Your task to perform on an android device: toggle wifi Image 0: 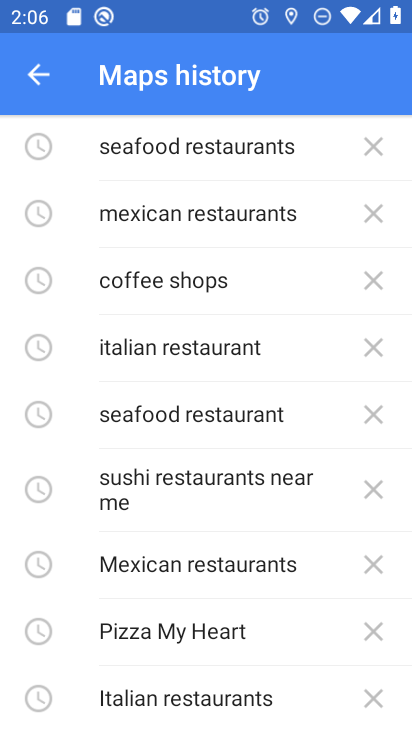
Step 0: press home button
Your task to perform on an android device: toggle wifi Image 1: 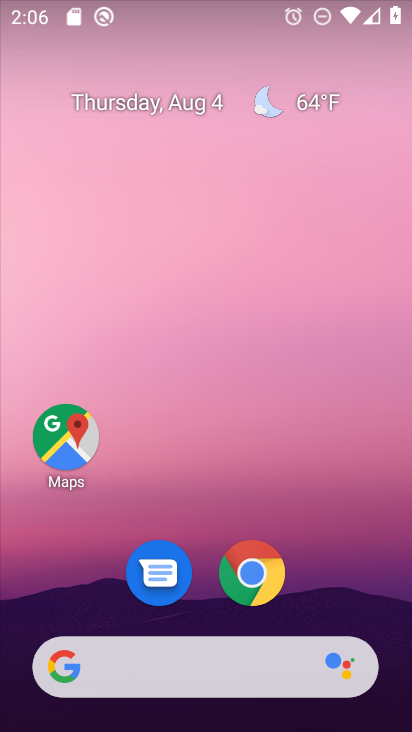
Step 1: drag from (299, 455) to (311, 129)
Your task to perform on an android device: toggle wifi Image 2: 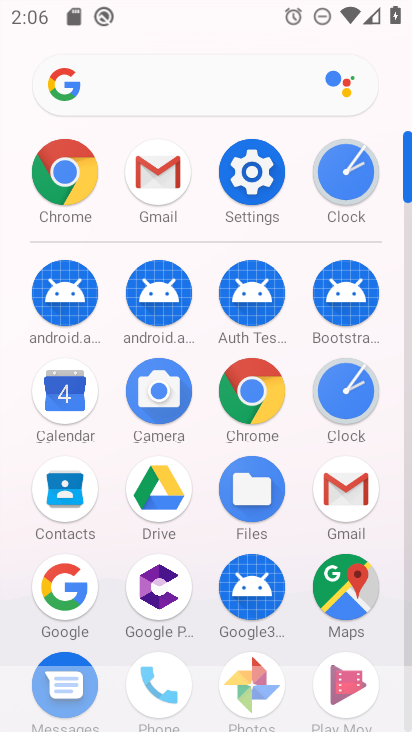
Step 2: click (244, 175)
Your task to perform on an android device: toggle wifi Image 3: 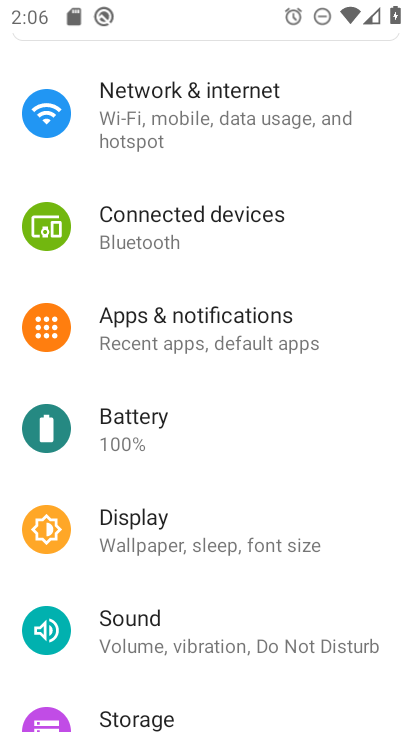
Step 3: click (185, 116)
Your task to perform on an android device: toggle wifi Image 4: 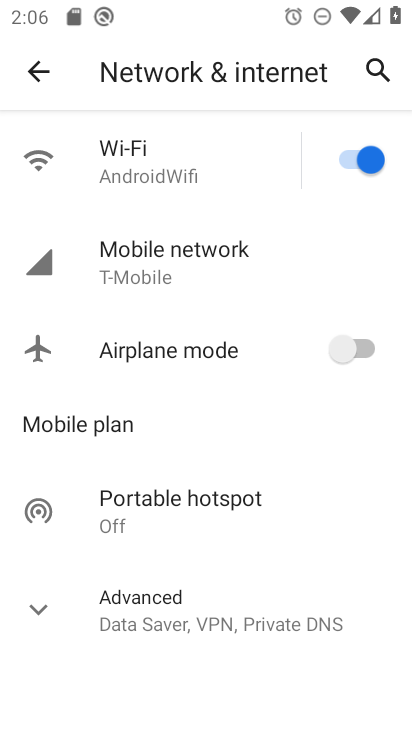
Step 4: click (372, 169)
Your task to perform on an android device: toggle wifi Image 5: 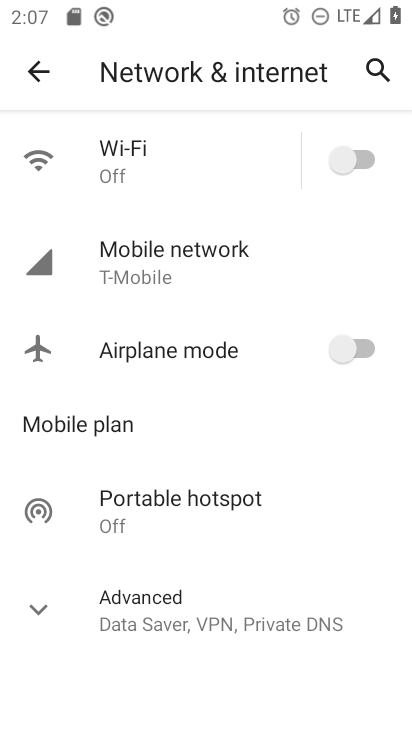
Step 5: task complete